Your task to perform on an android device: turn off notifications in google photos Image 0: 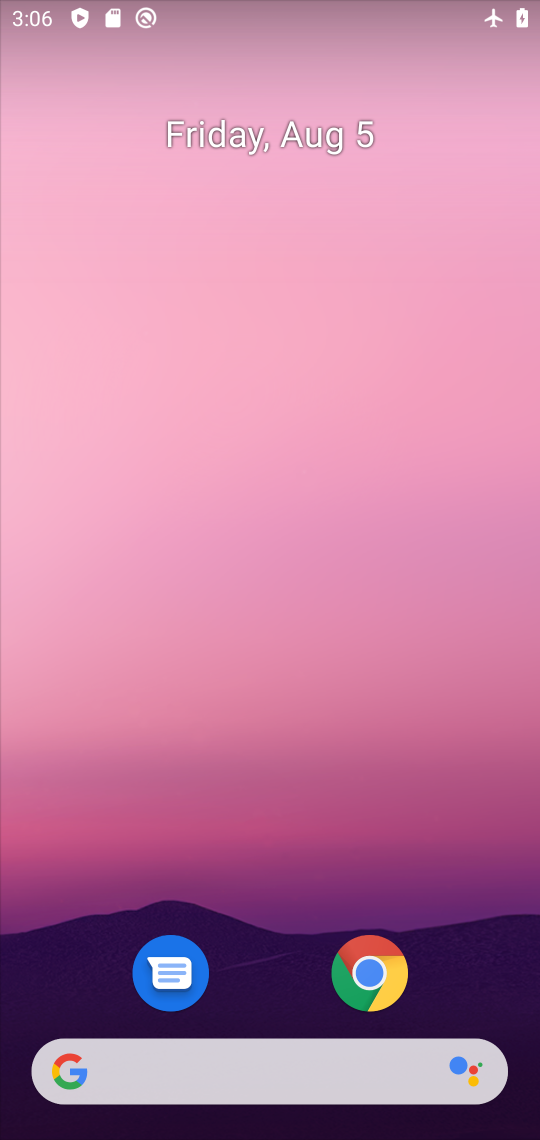
Step 0: drag from (271, 971) to (202, 3)
Your task to perform on an android device: turn off notifications in google photos Image 1: 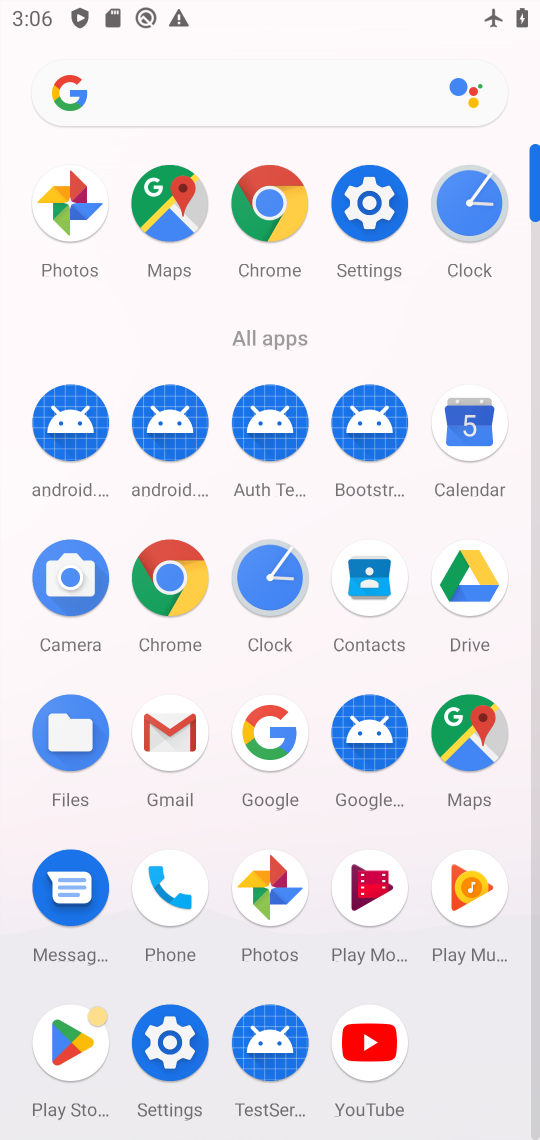
Step 1: click (277, 906)
Your task to perform on an android device: turn off notifications in google photos Image 2: 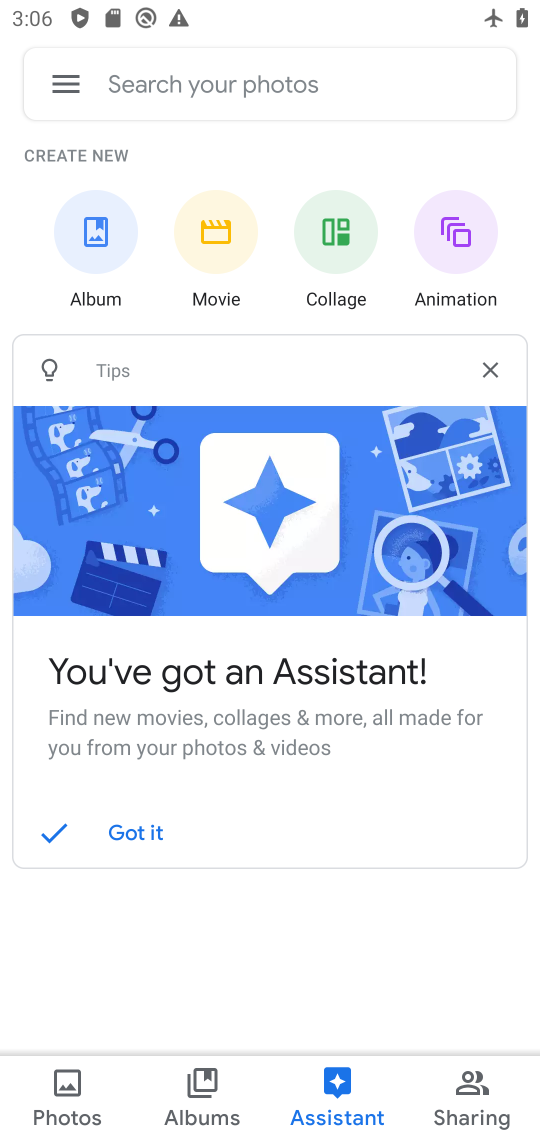
Step 2: click (57, 81)
Your task to perform on an android device: turn off notifications in google photos Image 3: 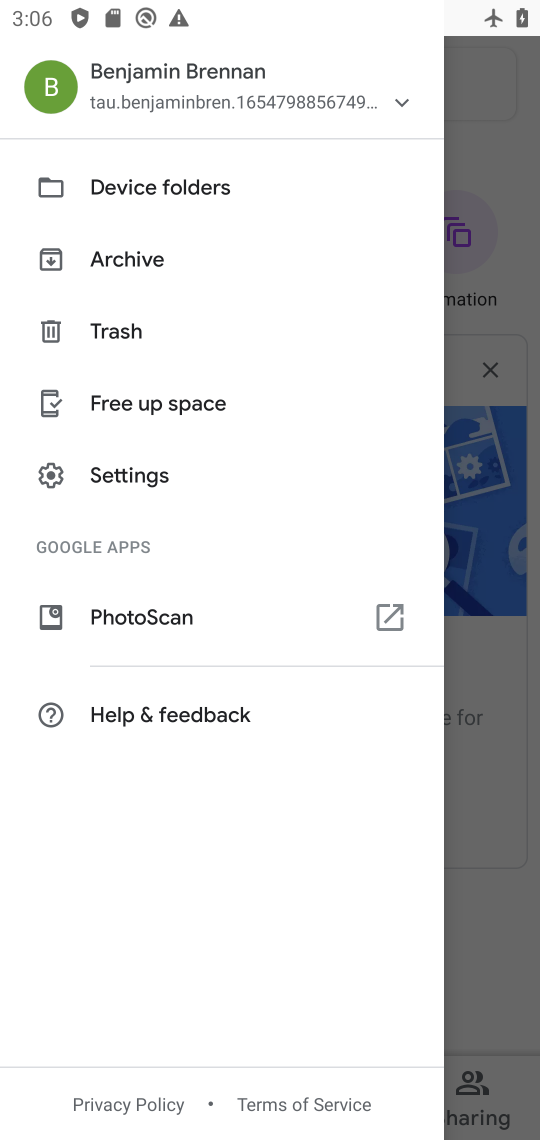
Step 3: click (111, 478)
Your task to perform on an android device: turn off notifications in google photos Image 4: 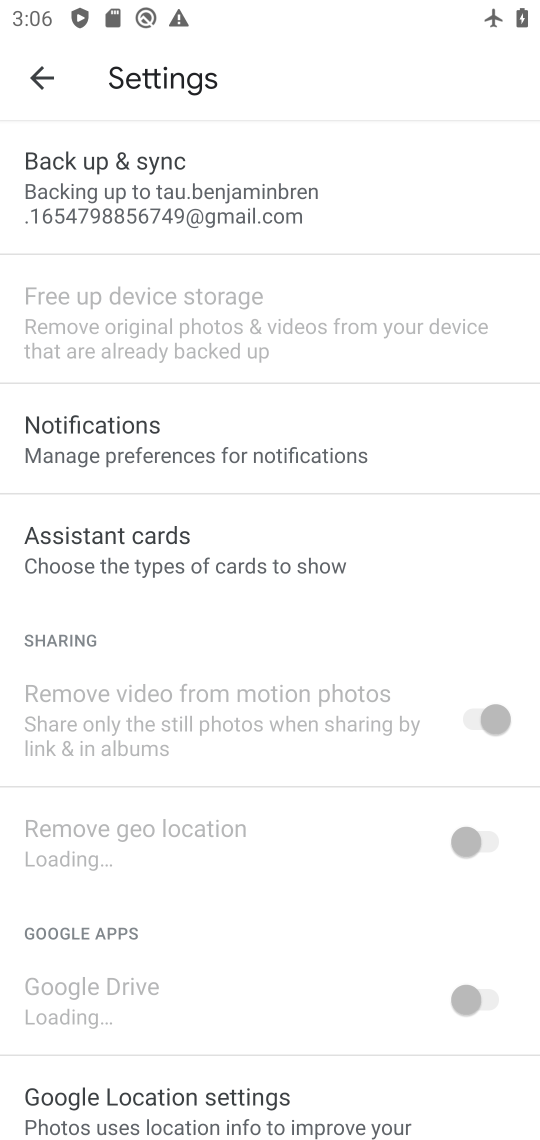
Step 4: click (134, 421)
Your task to perform on an android device: turn off notifications in google photos Image 5: 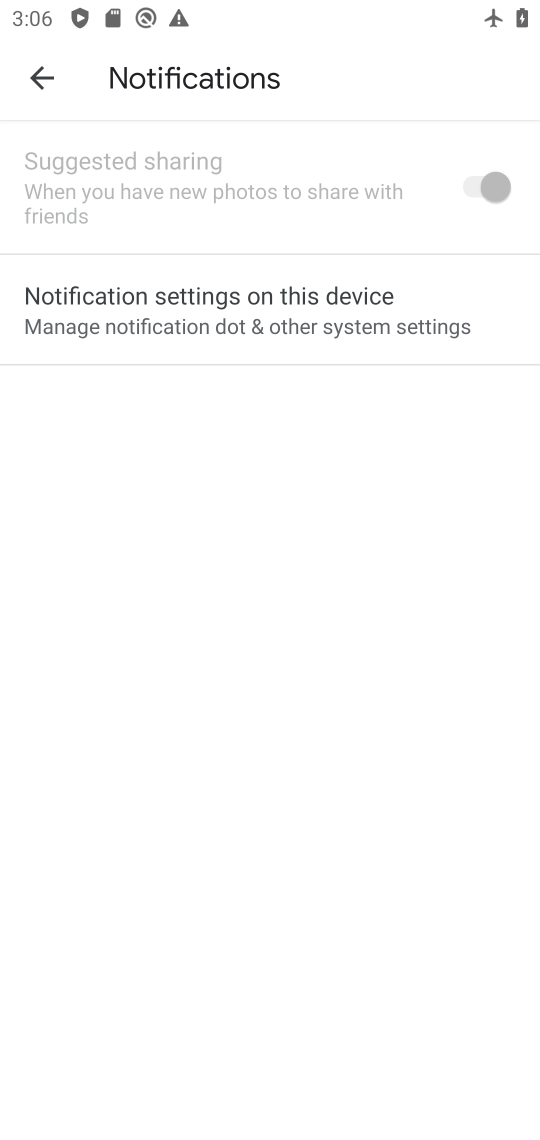
Step 5: click (256, 309)
Your task to perform on an android device: turn off notifications in google photos Image 6: 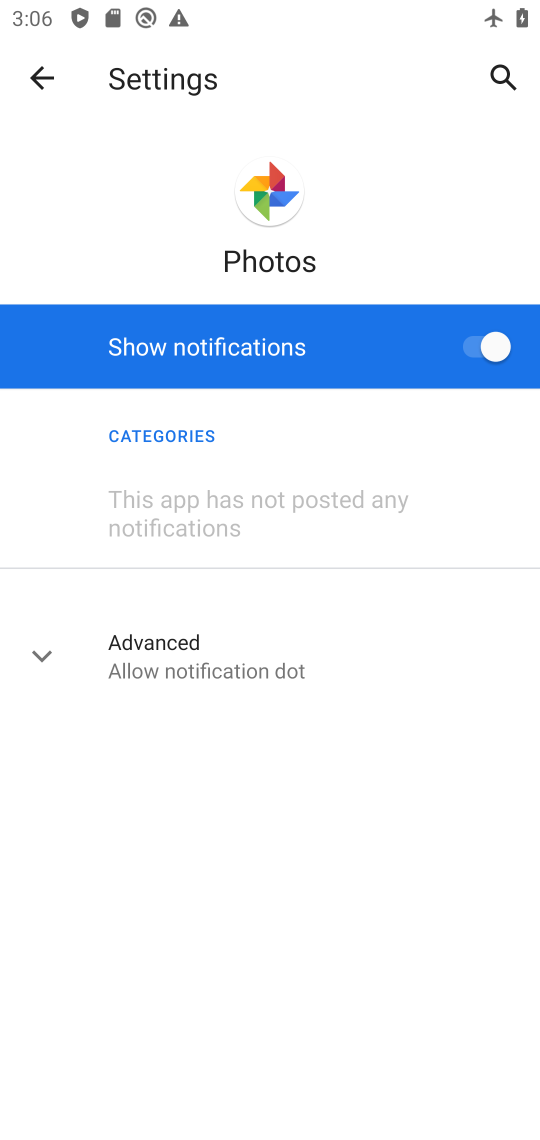
Step 6: click (502, 360)
Your task to perform on an android device: turn off notifications in google photos Image 7: 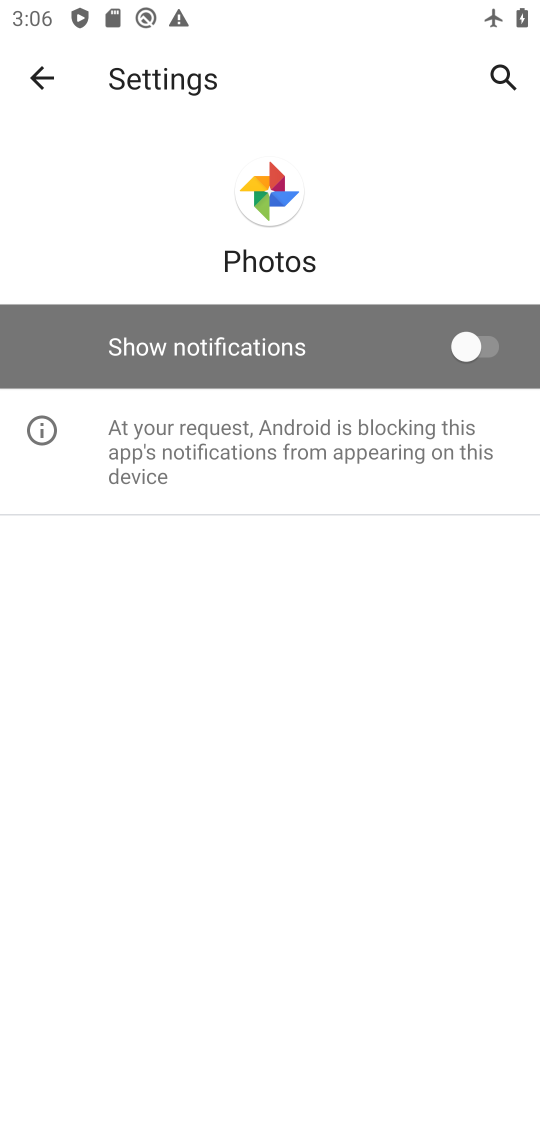
Step 7: task complete